Your task to perform on an android device: turn smart compose on in the gmail app Image 0: 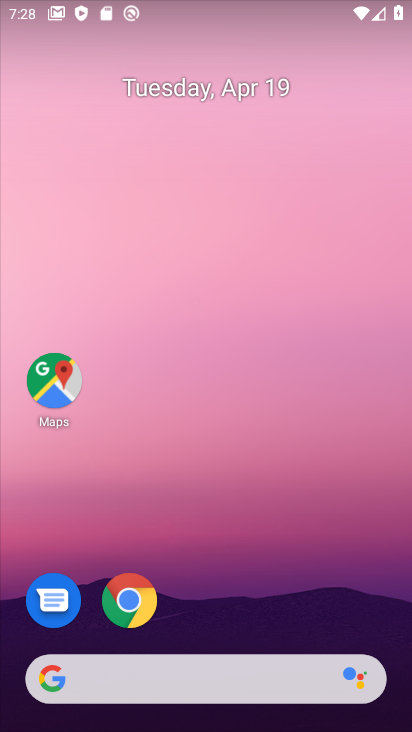
Step 0: drag from (382, 614) to (387, 68)
Your task to perform on an android device: turn smart compose on in the gmail app Image 1: 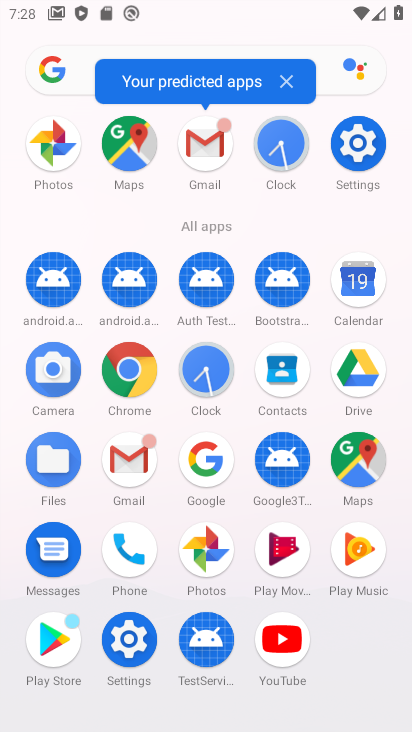
Step 1: click (123, 456)
Your task to perform on an android device: turn smart compose on in the gmail app Image 2: 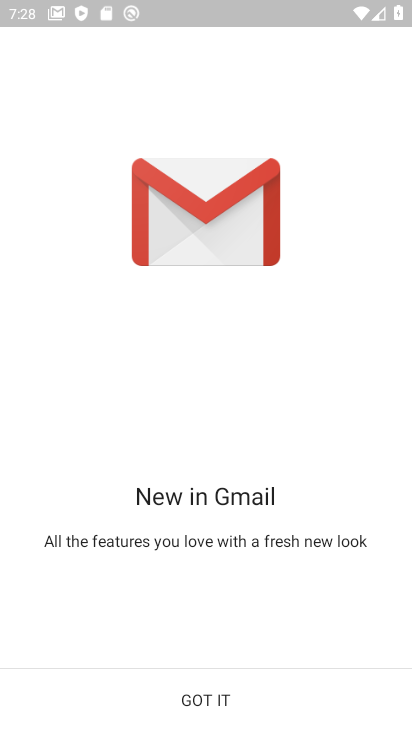
Step 2: click (190, 699)
Your task to perform on an android device: turn smart compose on in the gmail app Image 3: 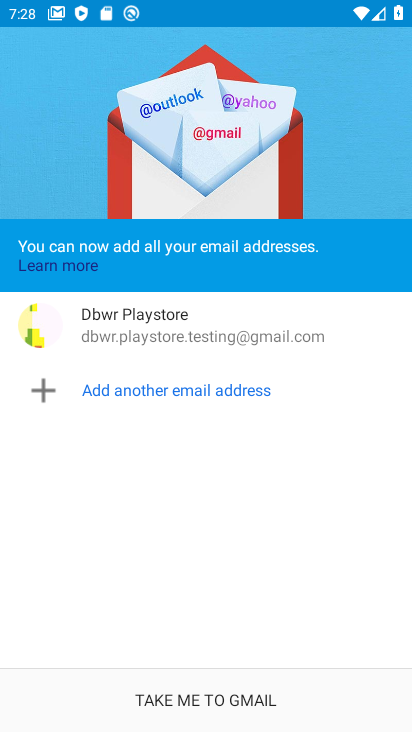
Step 3: click (194, 693)
Your task to perform on an android device: turn smart compose on in the gmail app Image 4: 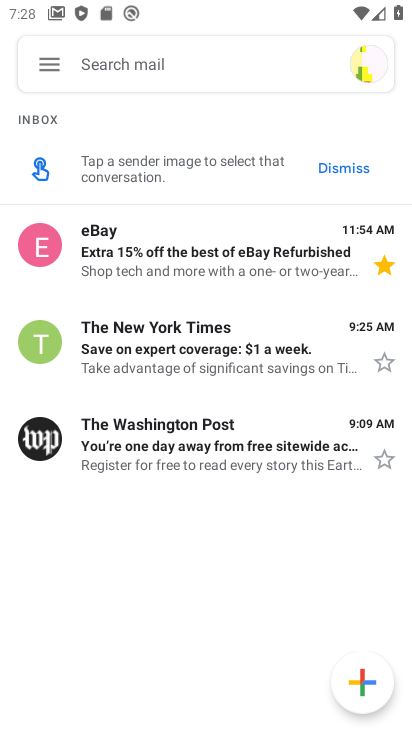
Step 4: click (53, 58)
Your task to perform on an android device: turn smart compose on in the gmail app Image 5: 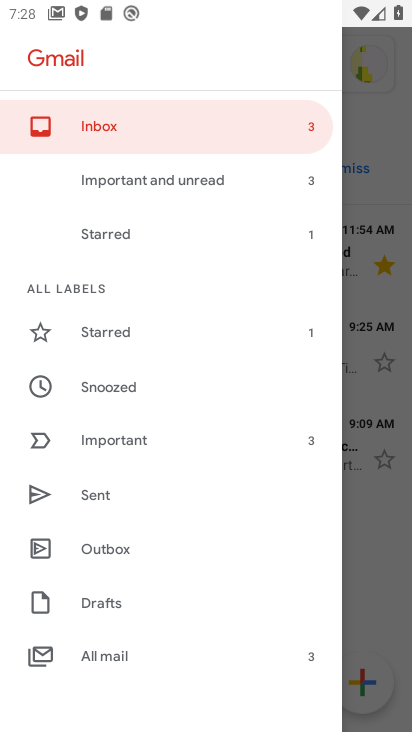
Step 5: drag from (223, 531) to (250, 335)
Your task to perform on an android device: turn smart compose on in the gmail app Image 6: 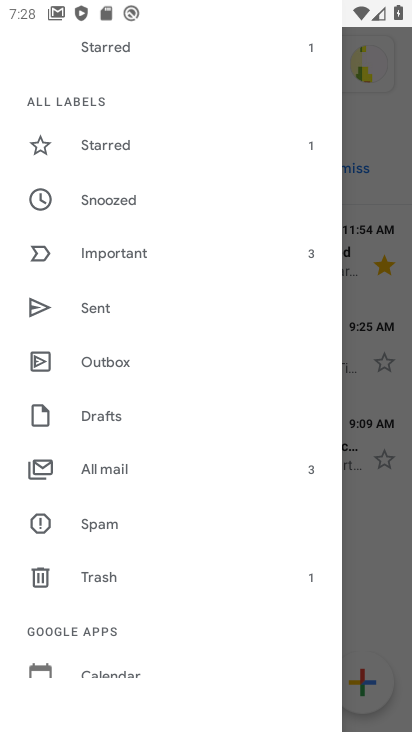
Step 6: drag from (235, 563) to (248, 314)
Your task to perform on an android device: turn smart compose on in the gmail app Image 7: 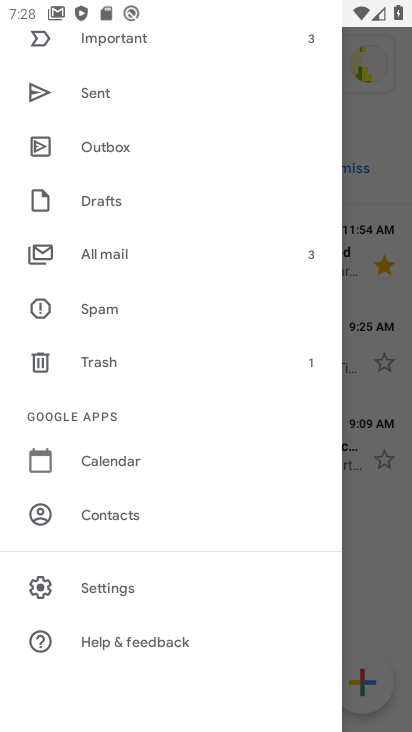
Step 7: click (123, 592)
Your task to perform on an android device: turn smart compose on in the gmail app Image 8: 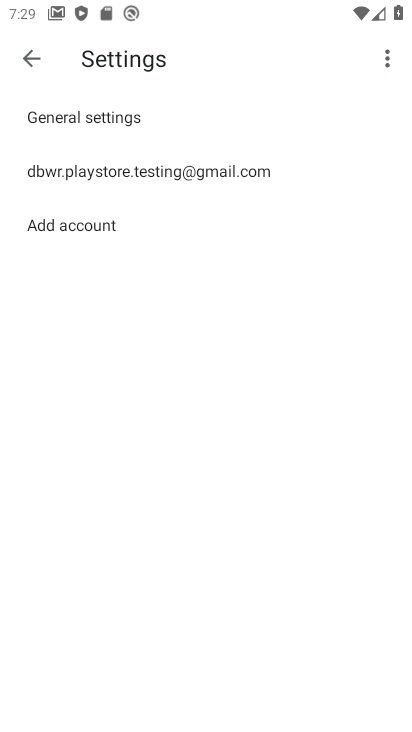
Step 8: click (189, 169)
Your task to perform on an android device: turn smart compose on in the gmail app Image 9: 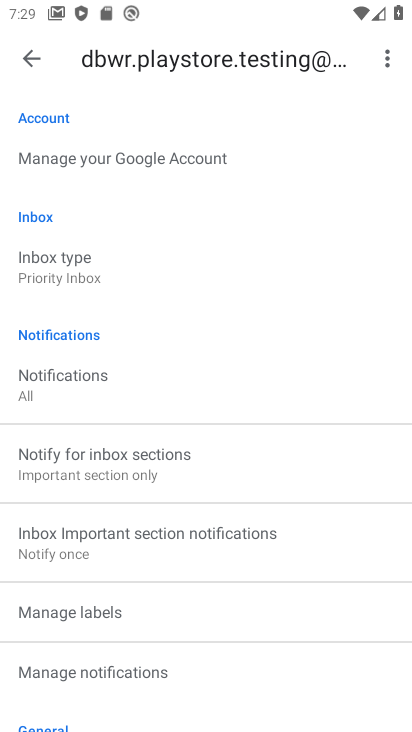
Step 9: task complete